Your task to perform on an android device: Search for pizza restaurants on Maps Image 0: 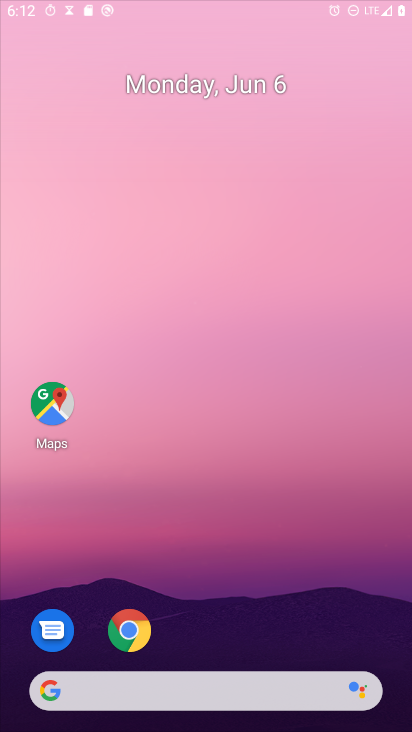
Step 0: drag from (349, 429) to (280, 15)
Your task to perform on an android device: Search for pizza restaurants on Maps Image 1: 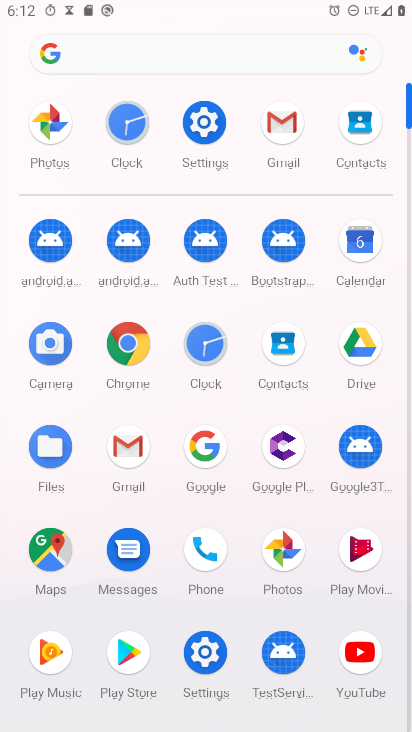
Step 1: click (48, 548)
Your task to perform on an android device: Search for pizza restaurants on Maps Image 2: 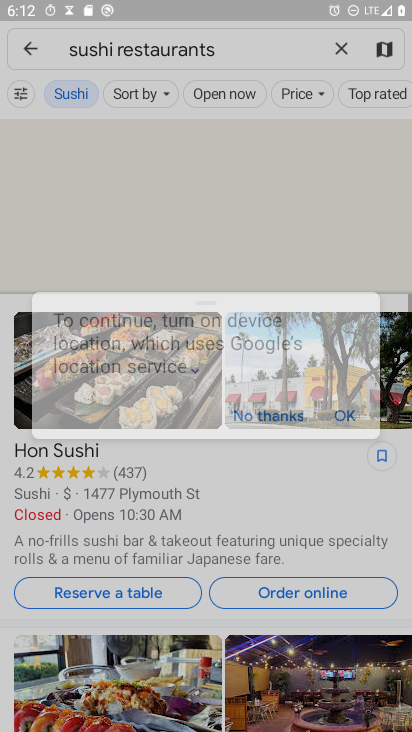
Step 2: click (339, 50)
Your task to perform on an android device: Search for pizza restaurants on Maps Image 3: 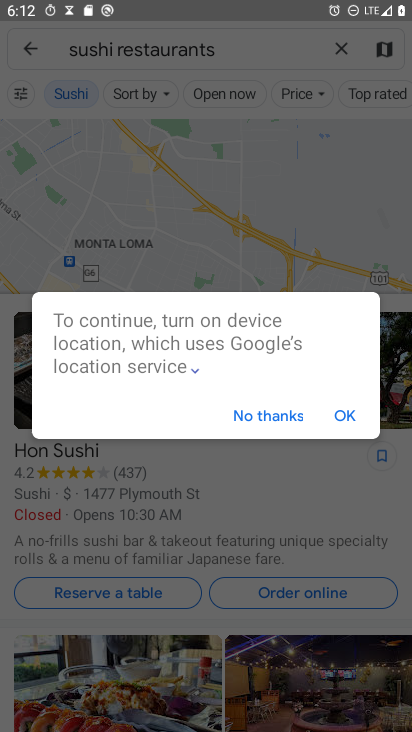
Step 3: click (343, 413)
Your task to perform on an android device: Search for pizza restaurants on Maps Image 4: 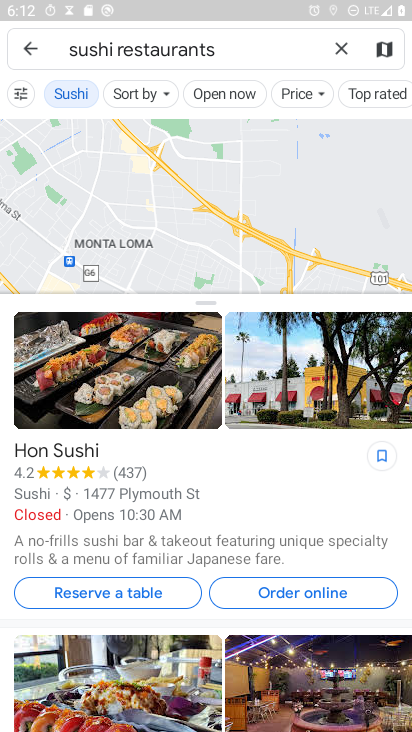
Step 4: click (341, 51)
Your task to perform on an android device: Search for pizza restaurants on Maps Image 5: 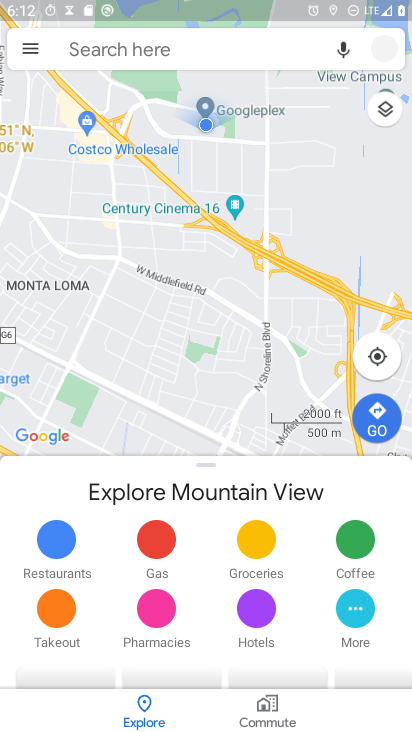
Step 5: click (190, 47)
Your task to perform on an android device: Search for pizza restaurants on Maps Image 6: 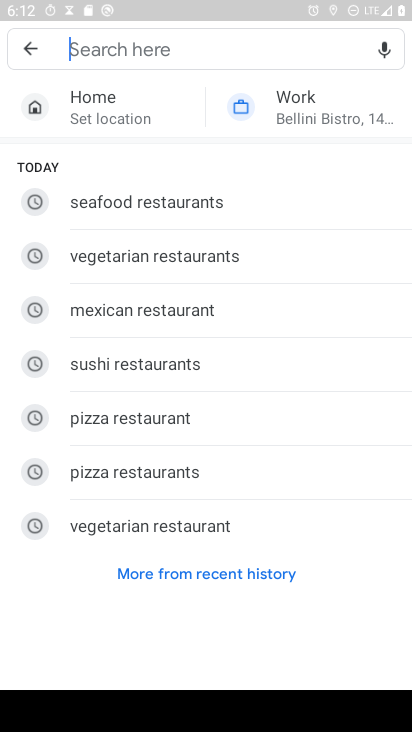
Step 6: type "pizza restaurants"
Your task to perform on an android device: Search for pizza restaurants on Maps Image 7: 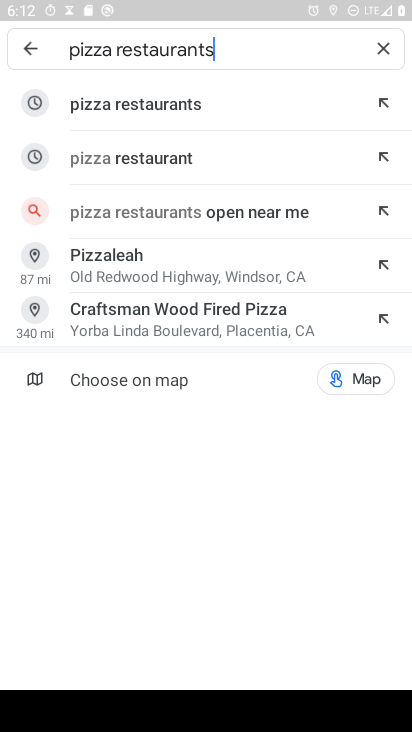
Step 7: click (188, 94)
Your task to perform on an android device: Search for pizza restaurants on Maps Image 8: 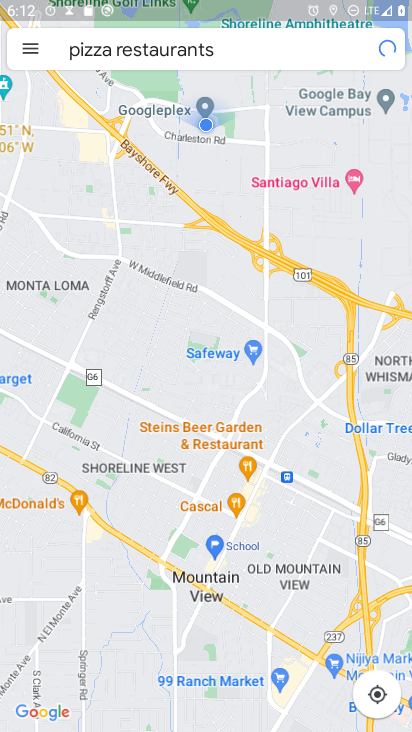
Step 8: task complete